Your task to perform on an android device: visit the assistant section in the google photos Image 0: 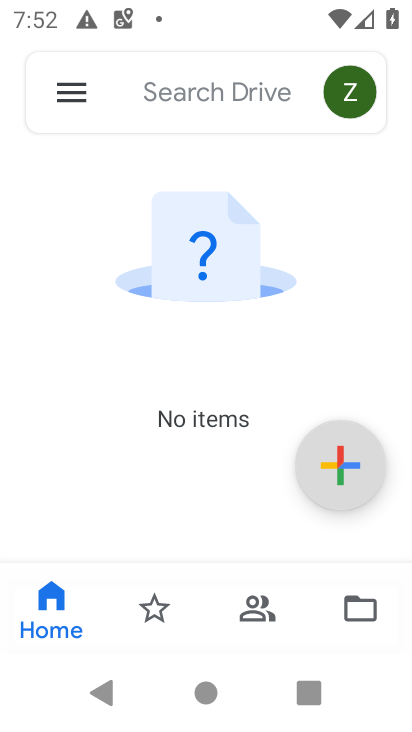
Step 0: press home button
Your task to perform on an android device: visit the assistant section in the google photos Image 1: 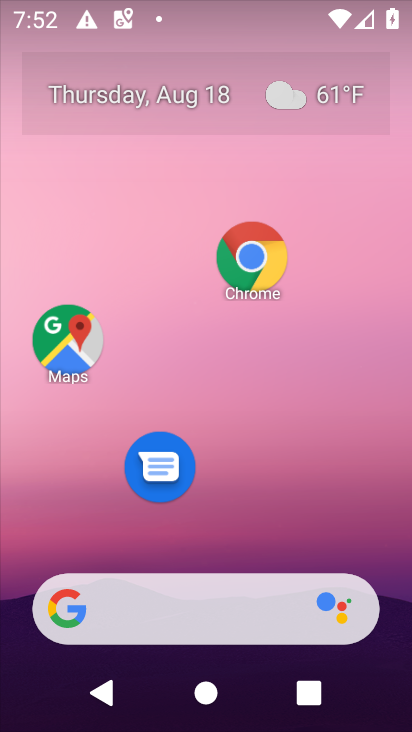
Step 1: task complete